Your task to perform on an android device: Is it going to rain this weekend? Image 0: 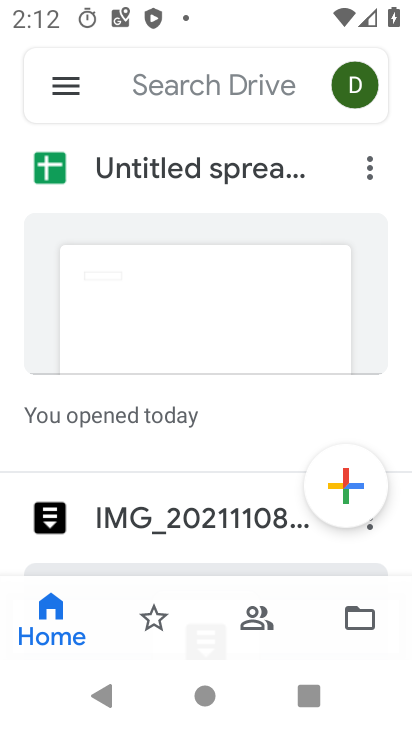
Step 0: press home button
Your task to perform on an android device: Is it going to rain this weekend? Image 1: 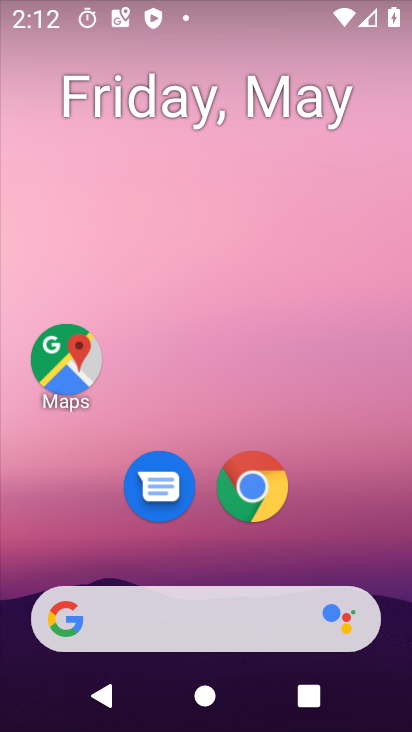
Step 1: drag from (30, 241) to (399, 246)
Your task to perform on an android device: Is it going to rain this weekend? Image 2: 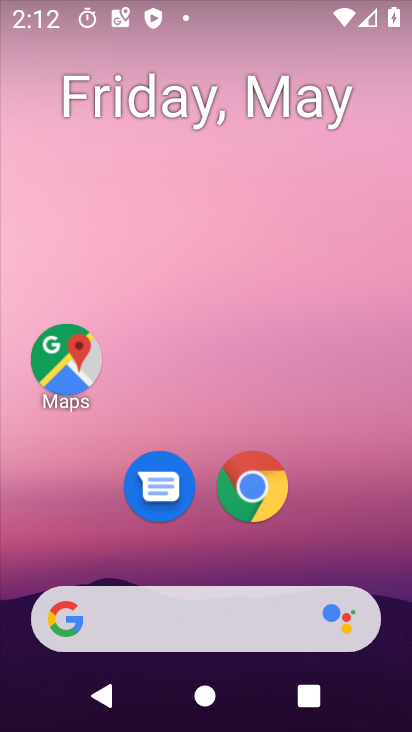
Step 2: drag from (3, 187) to (388, 207)
Your task to perform on an android device: Is it going to rain this weekend? Image 3: 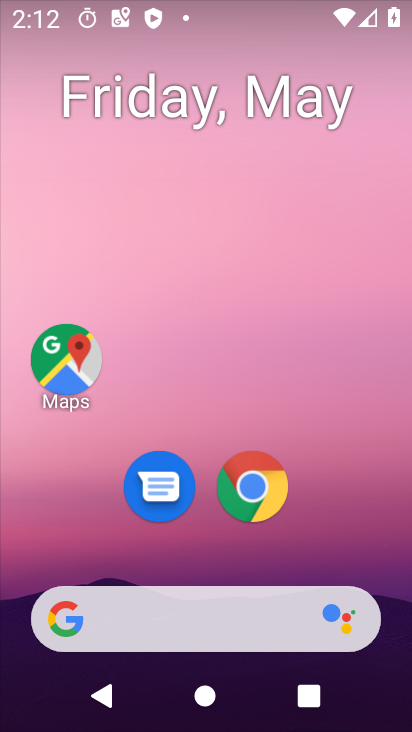
Step 3: drag from (125, 191) to (373, 174)
Your task to perform on an android device: Is it going to rain this weekend? Image 4: 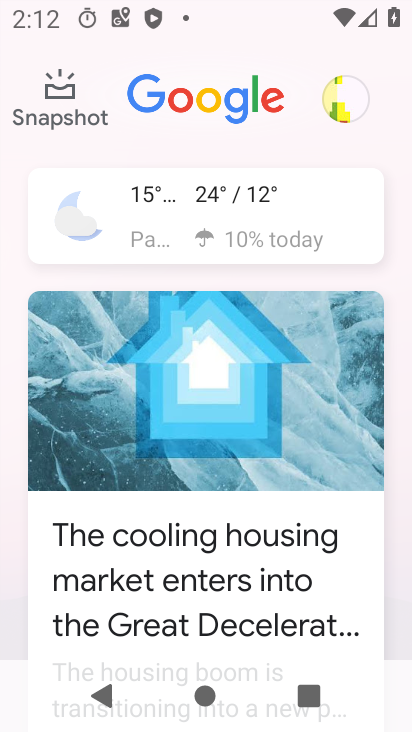
Step 4: click (264, 216)
Your task to perform on an android device: Is it going to rain this weekend? Image 5: 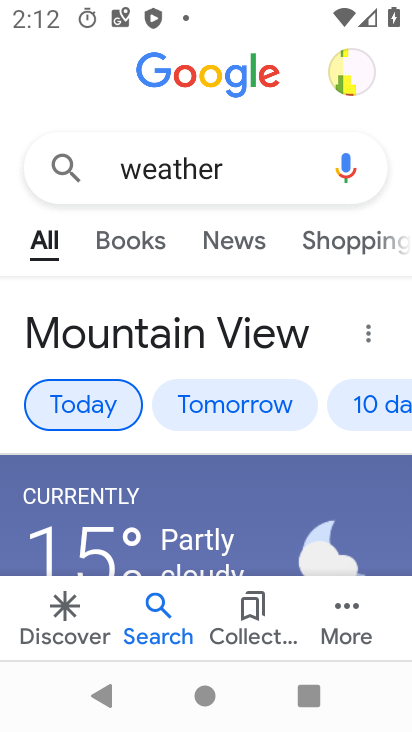
Step 5: click (362, 392)
Your task to perform on an android device: Is it going to rain this weekend? Image 6: 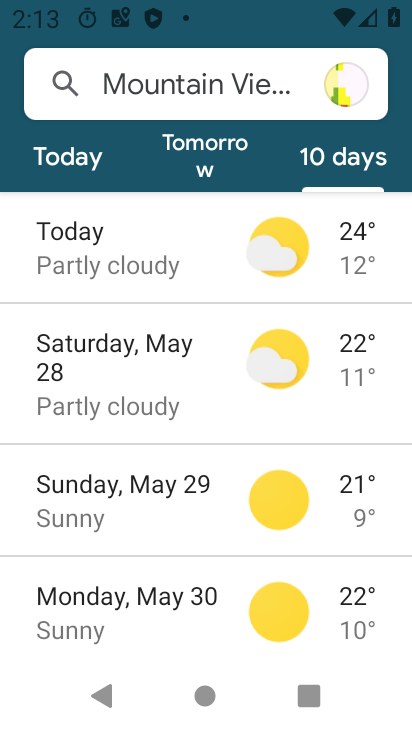
Step 6: task complete